Your task to perform on an android device: Open location settings Image 0: 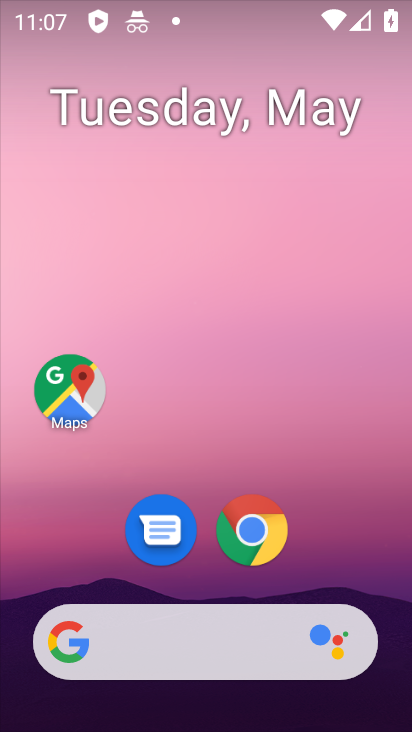
Step 0: drag from (305, 496) to (276, 80)
Your task to perform on an android device: Open location settings Image 1: 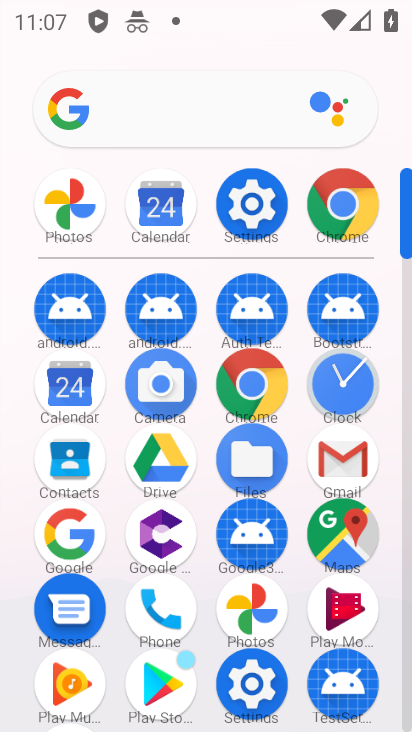
Step 1: click (242, 200)
Your task to perform on an android device: Open location settings Image 2: 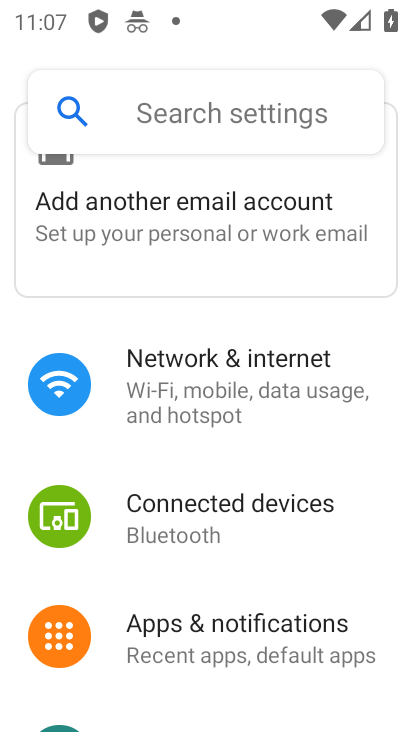
Step 2: drag from (247, 501) to (293, 105)
Your task to perform on an android device: Open location settings Image 3: 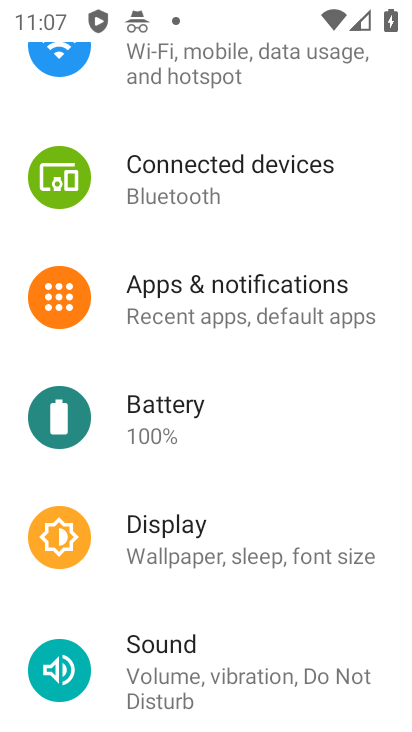
Step 3: drag from (224, 618) to (311, 186)
Your task to perform on an android device: Open location settings Image 4: 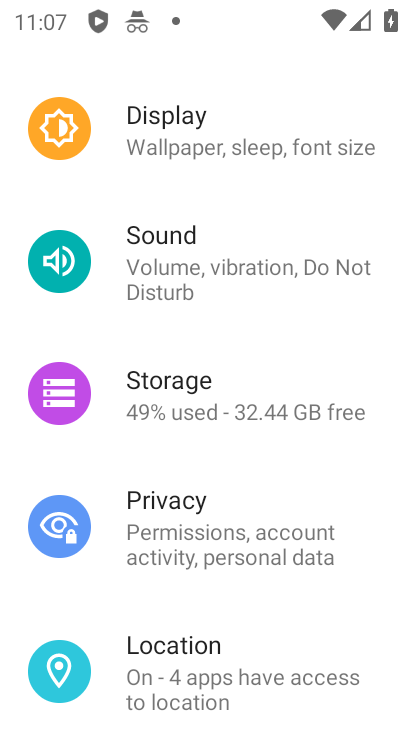
Step 4: click (172, 652)
Your task to perform on an android device: Open location settings Image 5: 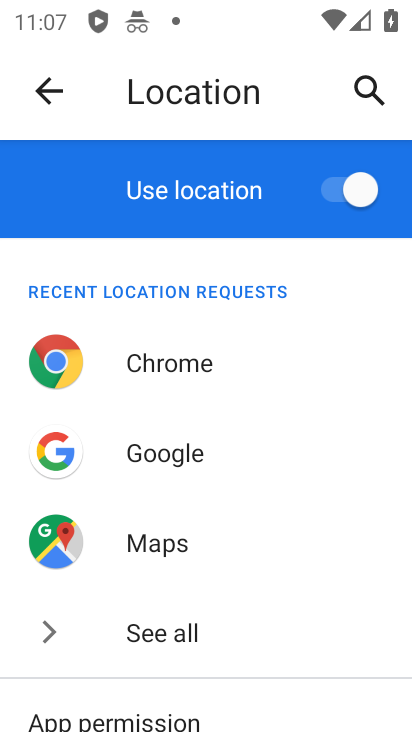
Step 5: task complete